Your task to perform on an android device: Search for sushi restaurants on Maps Image 0: 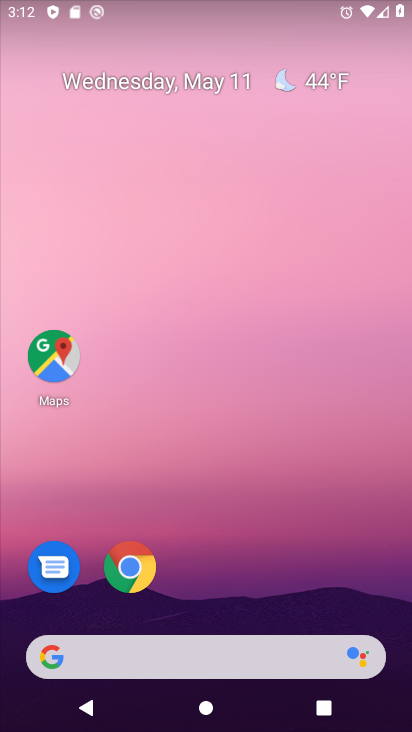
Step 0: drag from (227, 582) to (228, 32)
Your task to perform on an android device: Search for sushi restaurants on Maps Image 1: 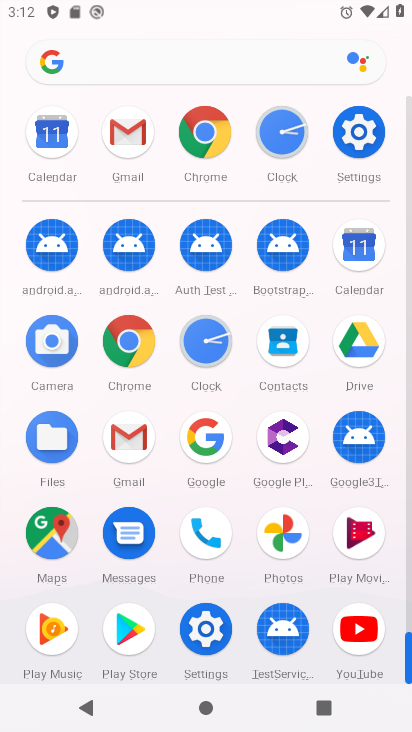
Step 1: drag from (8, 556) to (14, 221)
Your task to perform on an android device: Search for sushi restaurants on Maps Image 2: 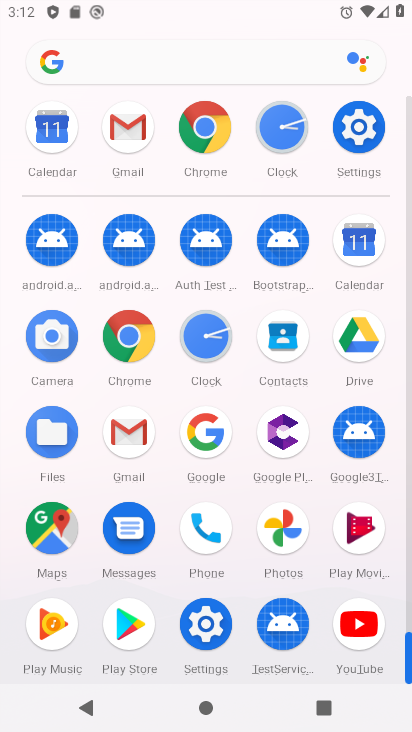
Step 2: click (49, 525)
Your task to perform on an android device: Search for sushi restaurants on Maps Image 3: 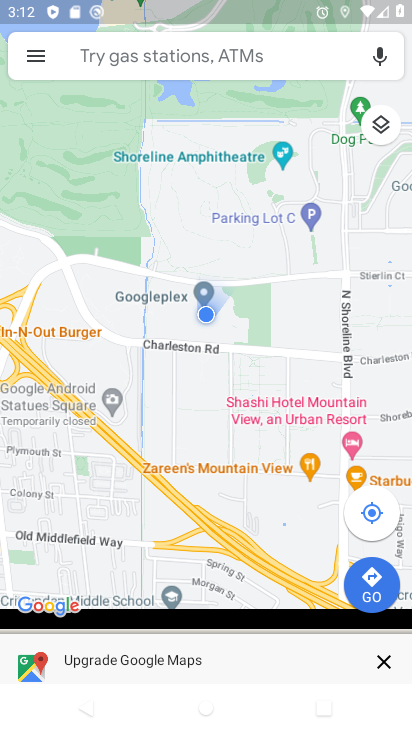
Step 3: click (287, 52)
Your task to perform on an android device: Search for sushi restaurants on Maps Image 4: 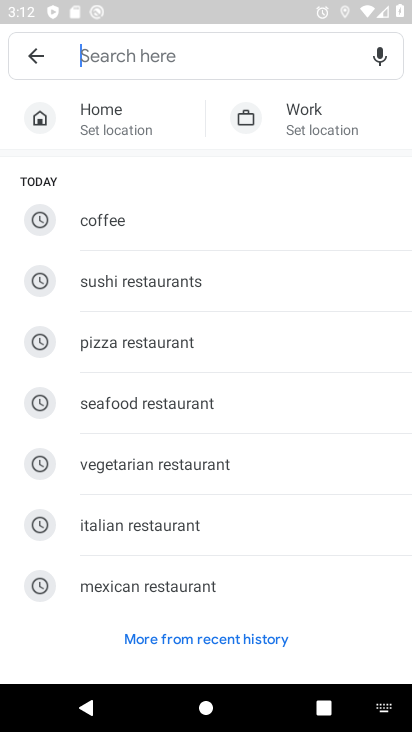
Step 4: click (192, 278)
Your task to perform on an android device: Search for sushi restaurants on Maps Image 5: 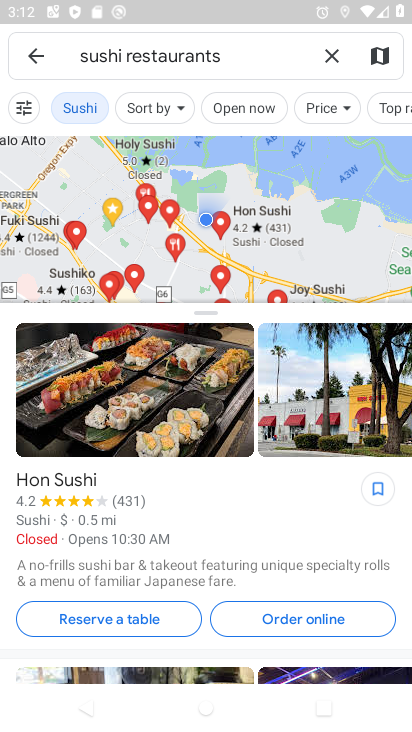
Step 5: task complete